Your task to perform on an android device: delete the emails in spam in the gmail app Image 0: 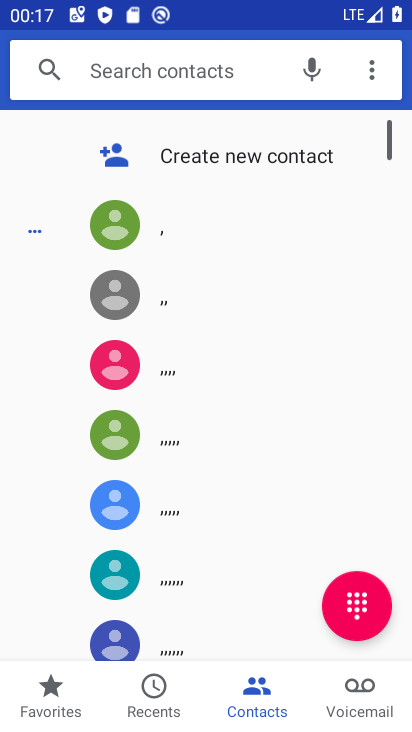
Step 0: press home button
Your task to perform on an android device: delete the emails in spam in the gmail app Image 1: 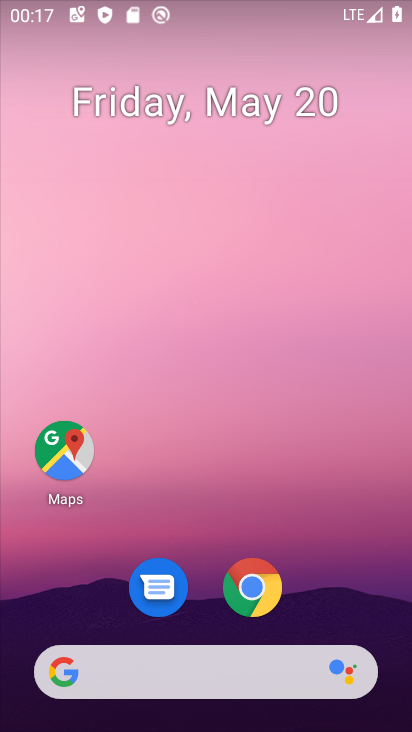
Step 1: drag from (202, 706) to (176, 168)
Your task to perform on an android device: delete the emails in spam in the gmail app Image 2: 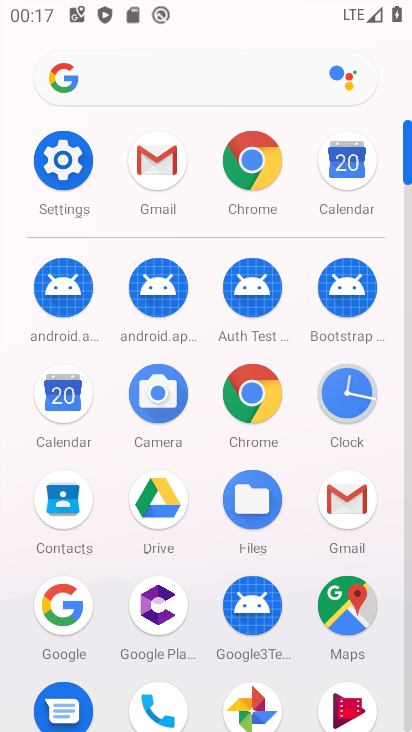
Step 2: click (339, 494)
Your task to perform on an android device: delete the emails in spam in the gmail app Image 3: 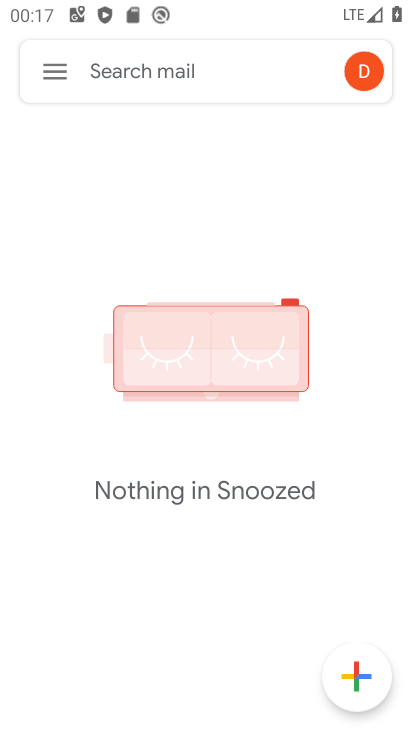
Step 3: click (52, 82)
Your task to perform on an android device: delete the emails in spam in the gmail app Image 4: 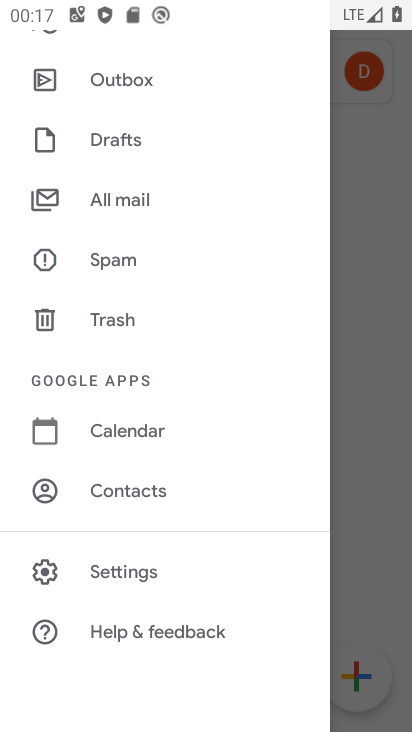
Step 4: click (112, 258)
Your task to perform on an android device: delete the emails in spam in the gmail app Image 5: 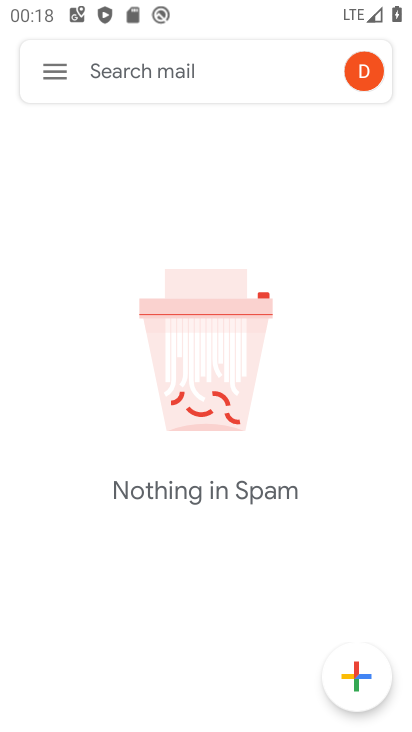
Step 5: task complete